Your task to perform on an android device: Search for pizza restaurants on Maps Image 0: 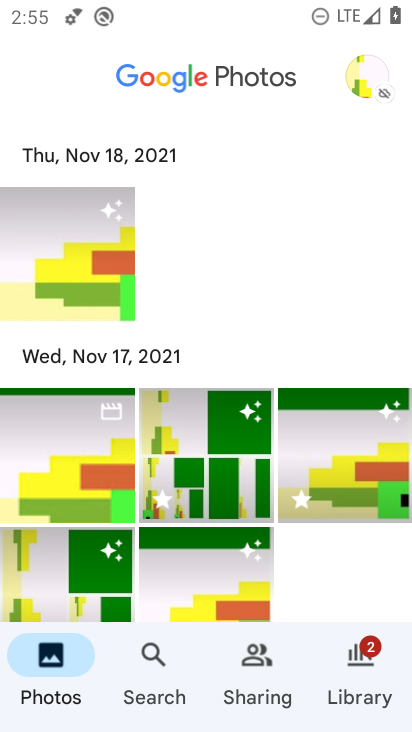
Step 0: press home button
Your task to perform on an android device: Search for pizza restaurants on Maps Image 1: 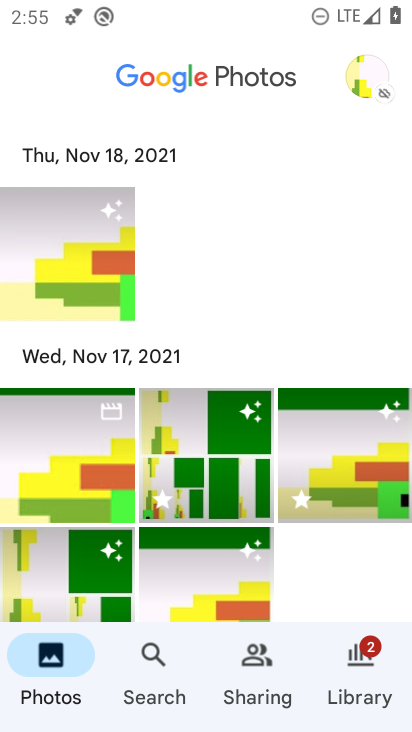
Step 1: press home button
Your task to perform on an android device: Search for pizza restaurants on Maps Image 2: 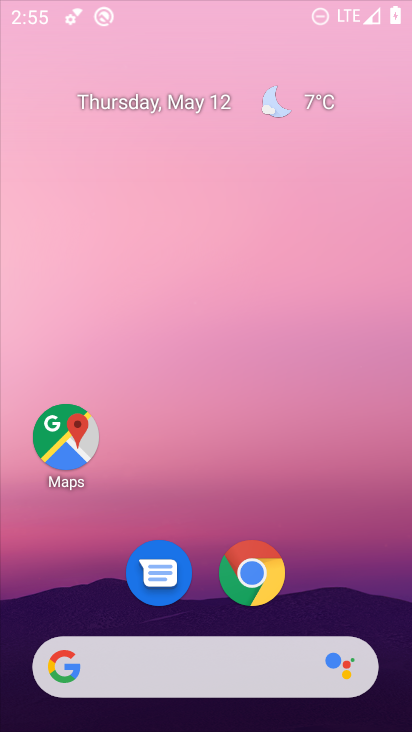
Step 2: press home button
Your task to perform on an android device: Search for pizza restaurants on Maps Image 3: 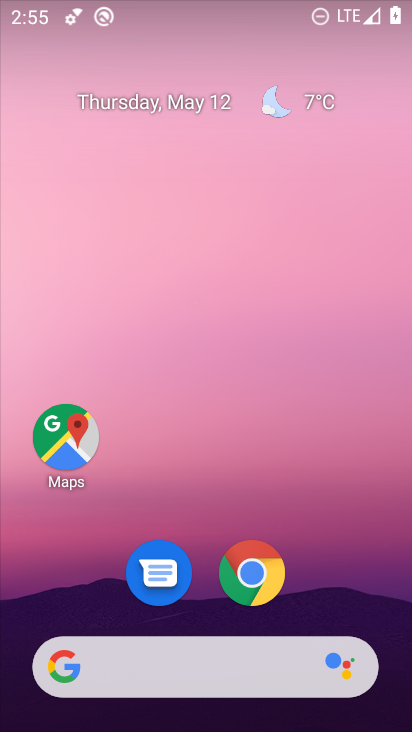
Step 3: press home button
Your task to perform on an android device: Search for pizza restaurants on Maps Image 4: 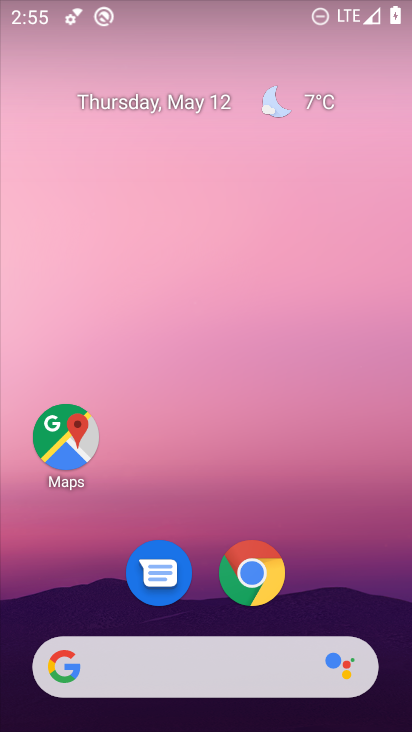
Step 4: drag from (362, 626) to (230, 78)
Your task to perform on an android device: Search for pizza restaurants on Maps Image 5: 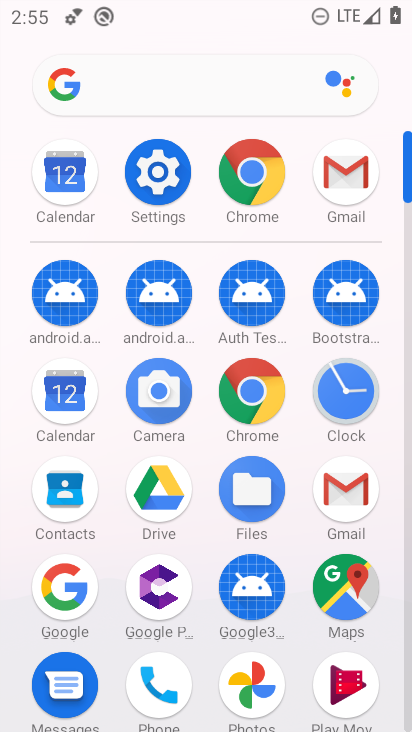
Step 5: click (350, 589)
Your task to perform on an android device: Search for pizza restaurants on Maps Image 6: 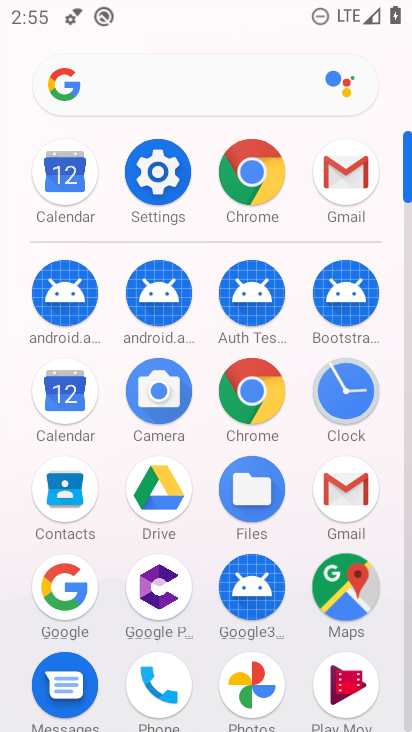
Step 6: click (350, 589)
Your task to perform on an android device: Search for pizza restaurants on Maps Image 7: 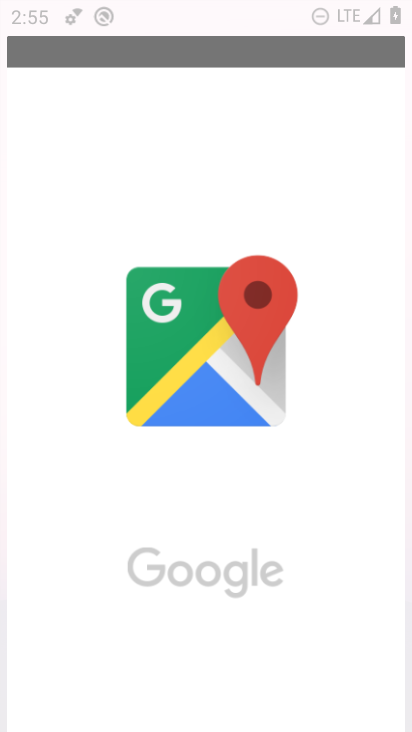
Step 7: click (352, 589)
Your task to perform on an android device: Search for pizza restaurants on Maps Image 8: 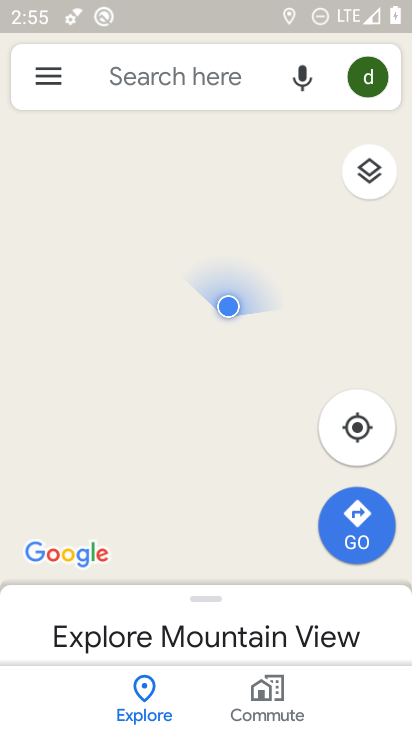
Step 8: click (124, 68)
Your task to perform on an android device: Search for pizza restaurants on Maps Image 9: 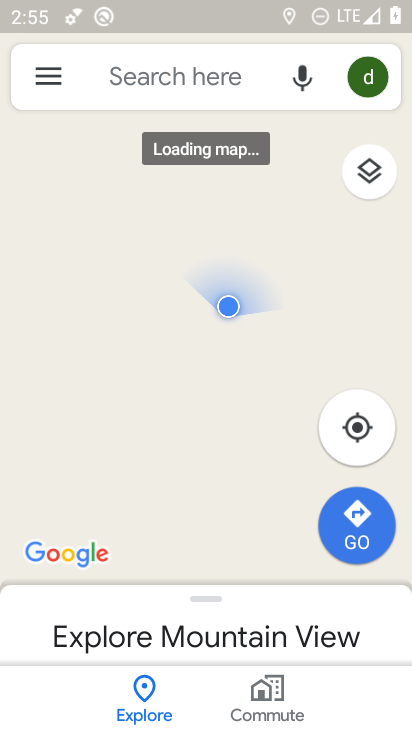
Step 9: click (124, 68)
Your task to perform on an android device: Search for pizza restaurants on Maps Image 10: 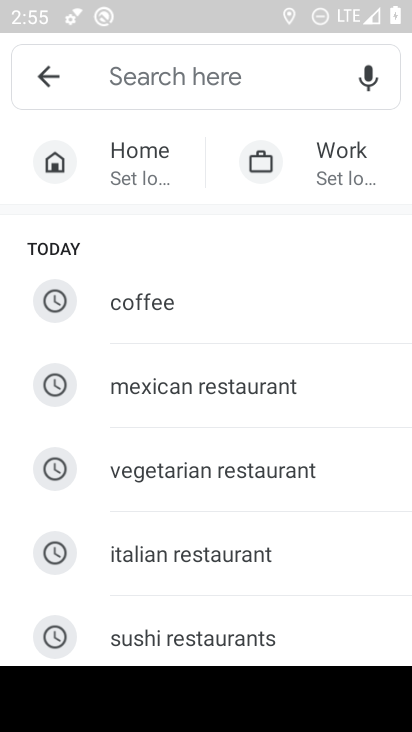
Step 10: type "pizza restaurants"
Your task to perform on an android device: Search for pizza restaurants on Maps Image 11: 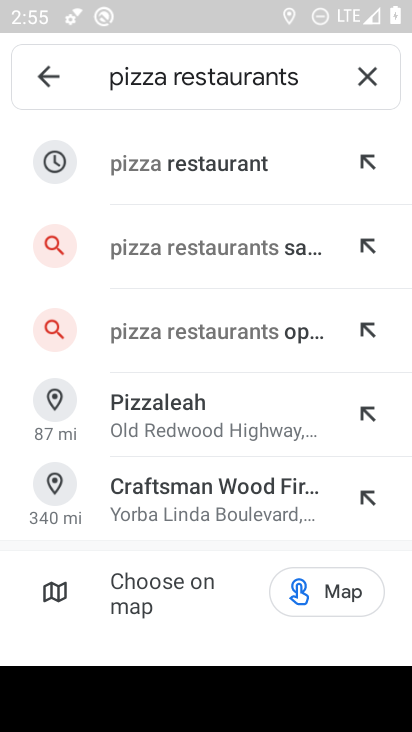
Step 11: click (190, 170)
Your task to perform on an android device: Search for pizza restaurants on Maps Image 12: 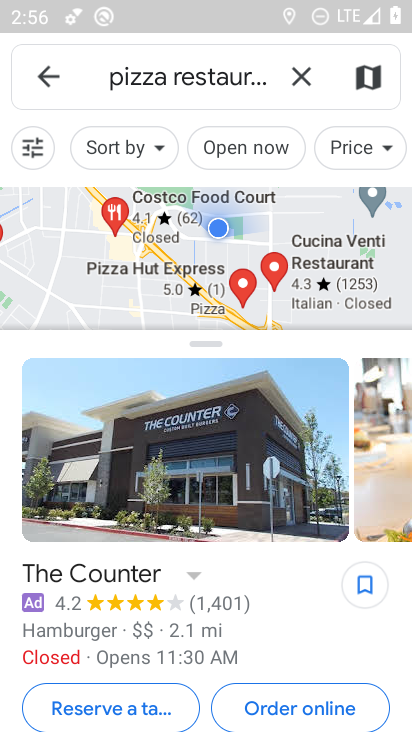
Step 12: click (32, 49)
Your task to perform on an android device: Search for pizza restaurants on Maps Image 13: 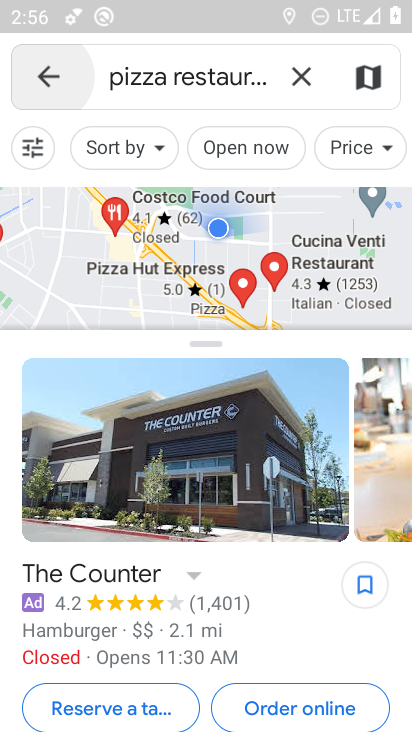
Step 13: click (38, 61)
Your task to perform on an android device: Search for pizza restaurants on Maps Image 14: 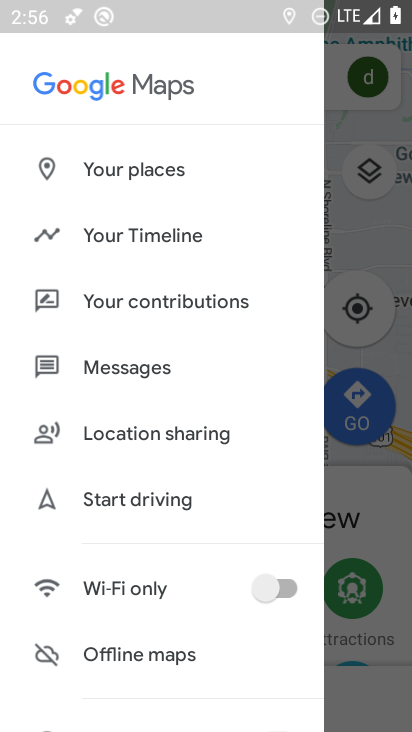
Step 14: click (351, 201)
Your task to perform on an android device: Search for pizza restaurants on Maps Image 15: 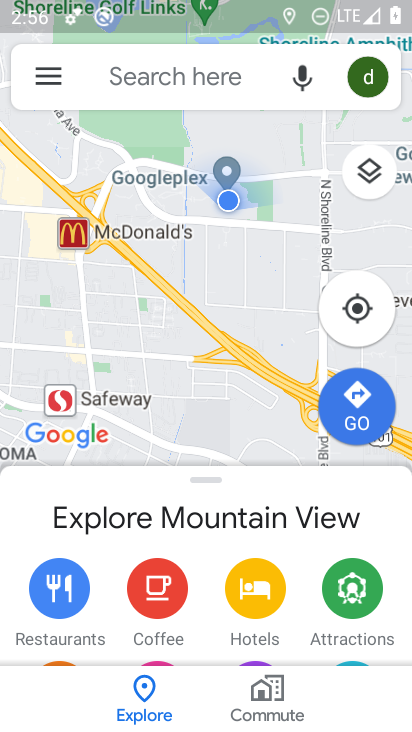
Step 15: click (113, 63)
Your task to perform on an android device: Search for pizza restaurants on Maps Image 16: 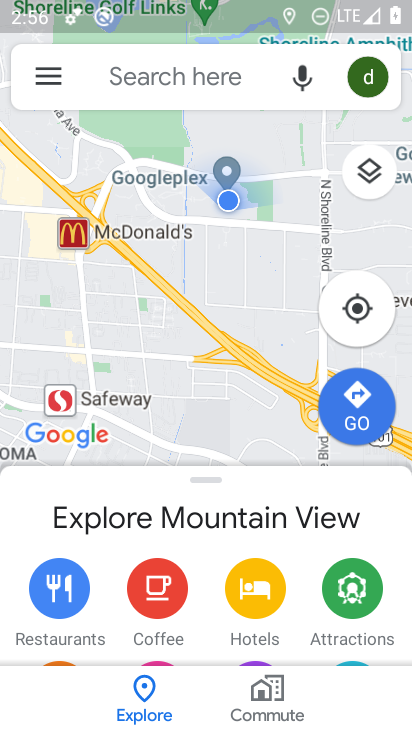
Step 16: click (129, 79)
Your task to perform on an android device: Search for pizza restaurants on Maps Image 17: 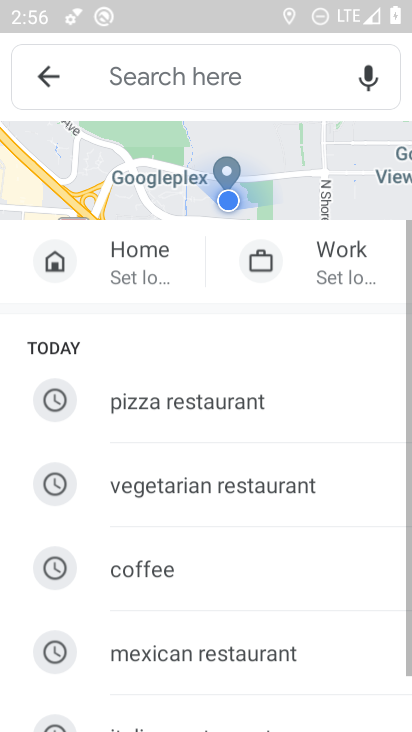
Step 17: click (127, 77)
Your task to perform on an android device: Search for pizza restaurants on Maps Image 18: 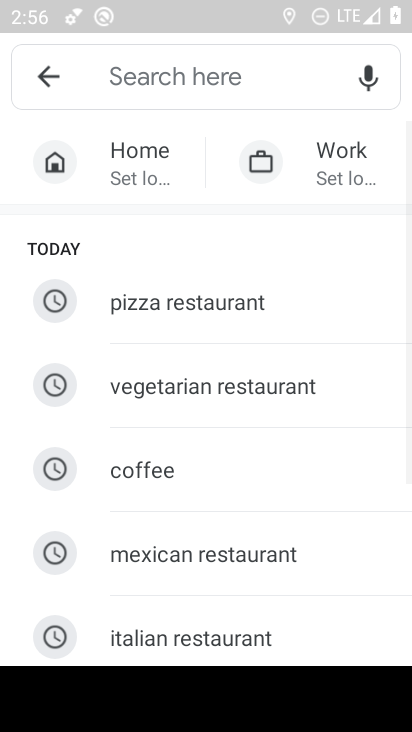
Step 18: click (166, 309)
Your task to perform on an android device: Search for pizza restaurants on Maps Image 19: 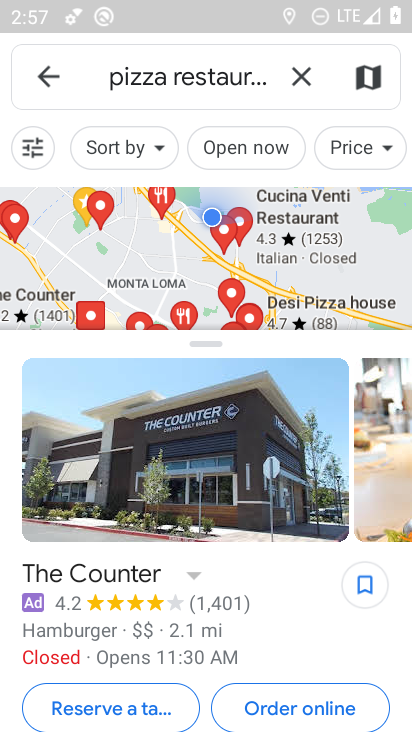
Step 19: task complete